Your task to perform on an android device: Show me productivity apps on the Play Store Image 0: 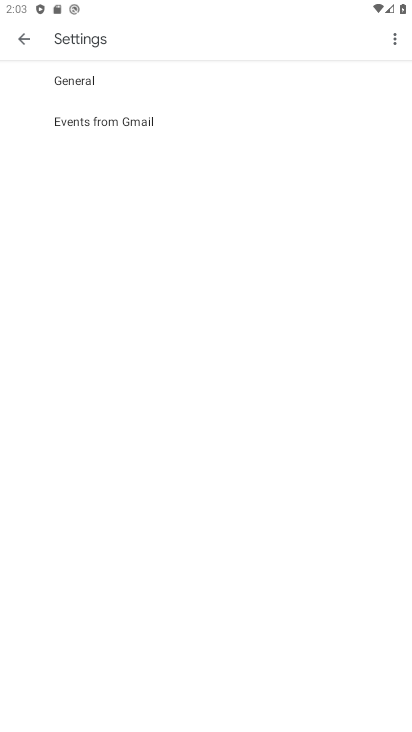
Step 0: press home button
Your task to perform on an android device: Show me productivity apps on the Play Store Image 1: 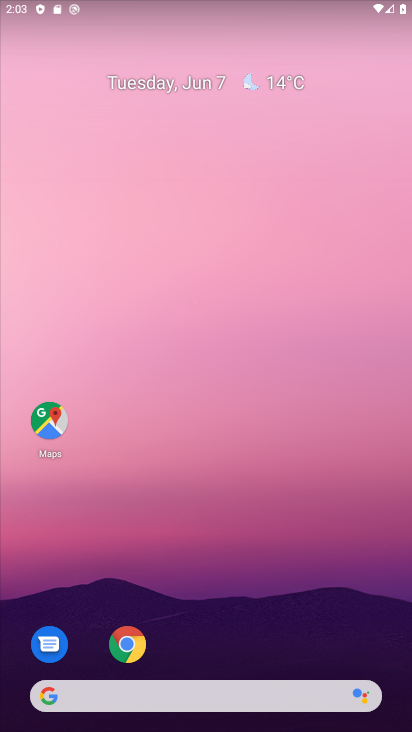
Step 1: drag from (348, 640) to (344, 226)
Your task to perform on an android device: Show me productivity apps on the Play Store Image 2: 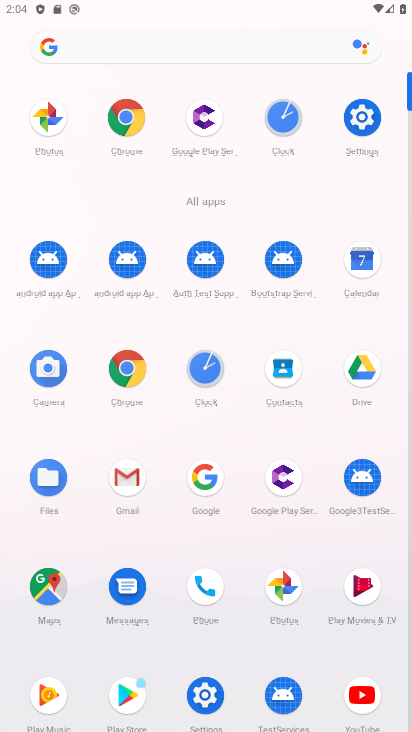
Step 2: drag from (305, 654) to (303, 512)
Your task to perform on an android device: Show me productivity apps on the Play Store Image 3: 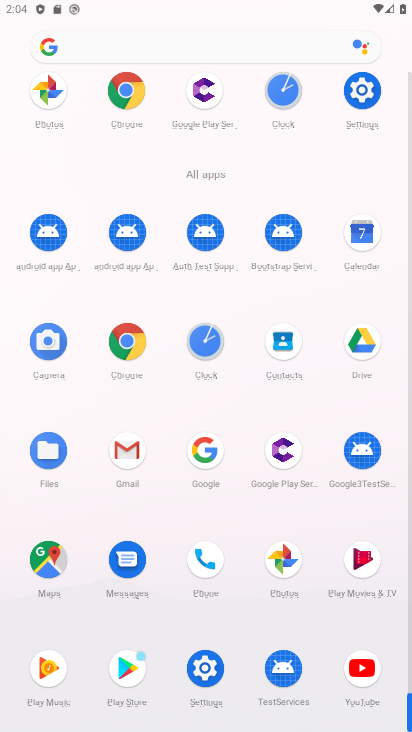
Step 3: click (133, 679)
Your task to perform on an android device: Show me productivity apps on the Play Store Image 4: 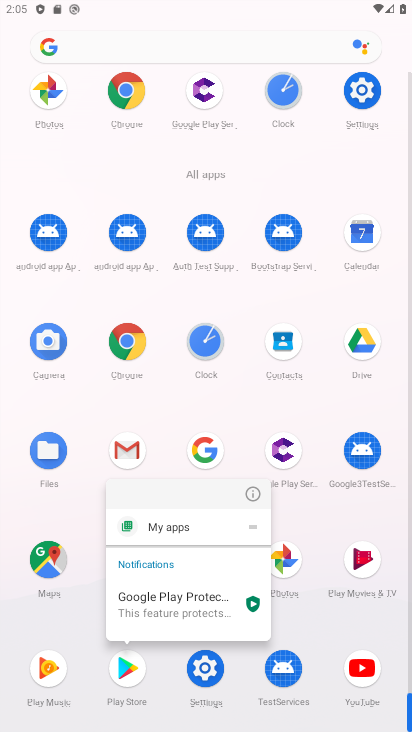
Step 4: drag from (310, 584) to (331, 200)
Your task to perform on an android device: Show me productivity apps on the Play Store Image 5: 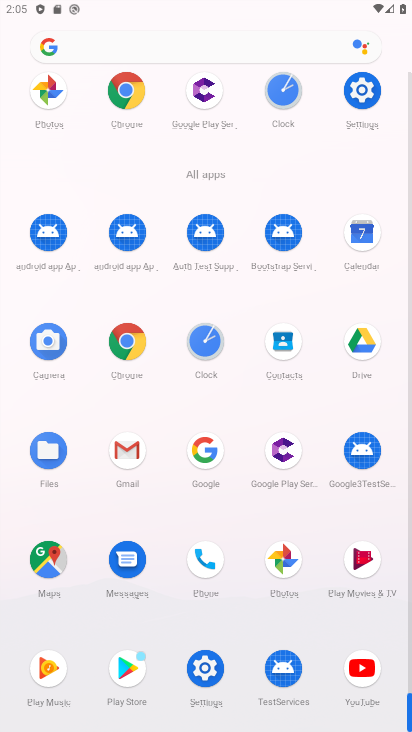
Step 5: click (123, 669)
Your task to perform on an android device: Show me productivity apps on the Play Store Image 6: 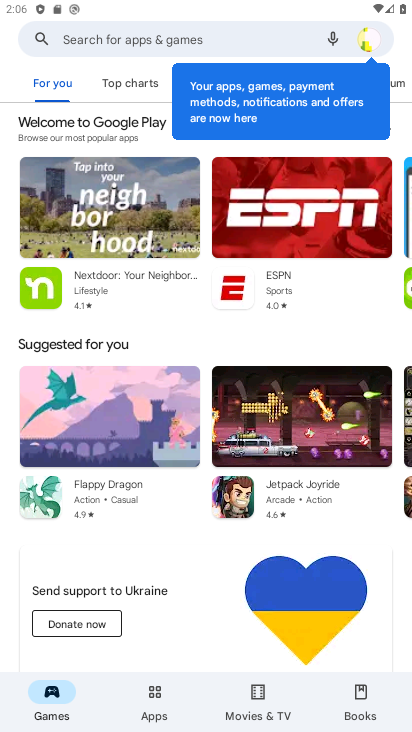
Step 6: click (159, 705)
Your task to perform on an android device: Show me productivity apps on the Play Store Image 7: 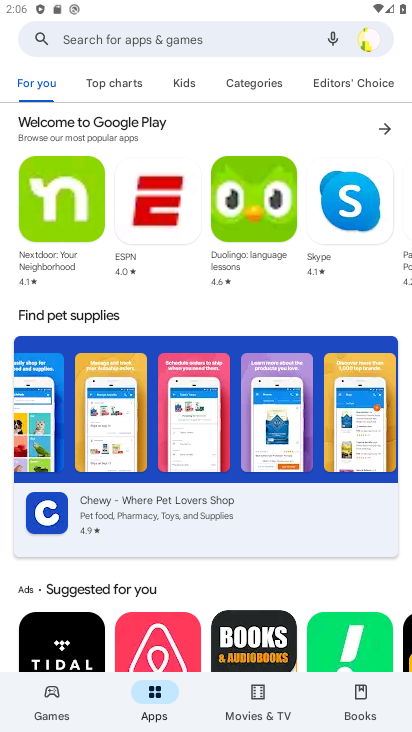
Step 7: task complete